Your task to perform on an android device: see sites visited before in the chrome app Image 0: 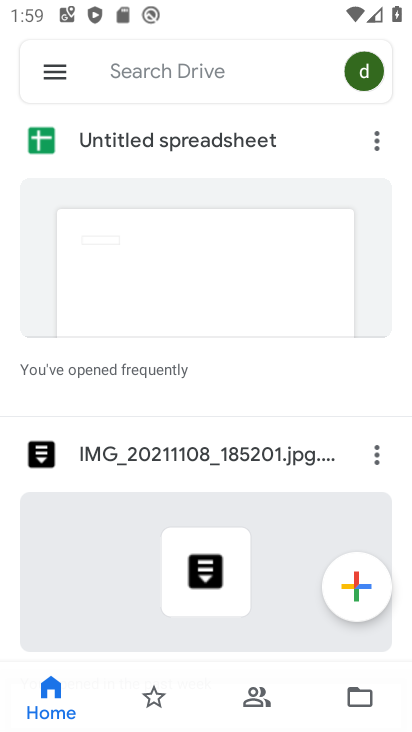
Step 0: press home button
Your task to perform on an android device: see sites visited before in the chrome app Image 1: 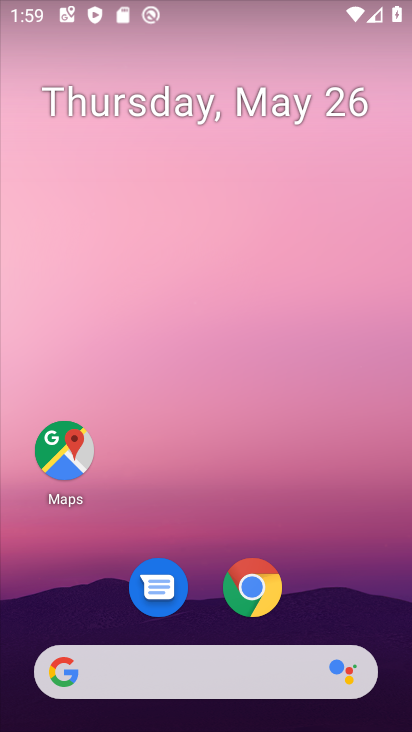
Step 1: click (249, 590)
Your task to perform on an android device: see sites visited before in the chrome app Image 2: 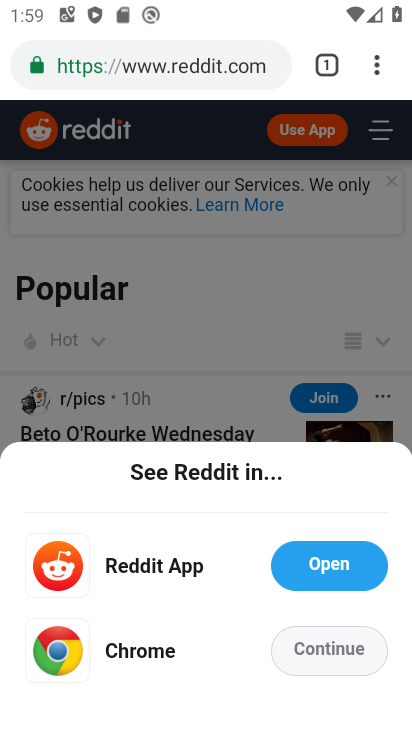
Step 2: task complete